Your task to perform on an android device: Open Chrome and go to settings Image 0: 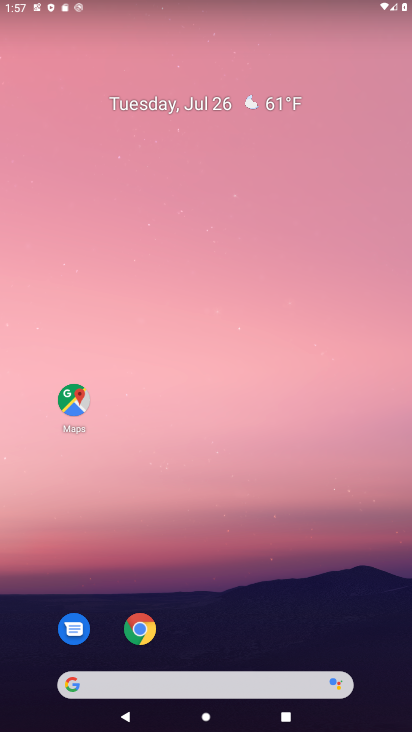
Step 0: click (150, 632)
Your task to perform on an android device: Open Chrome and go to settings Image 1: 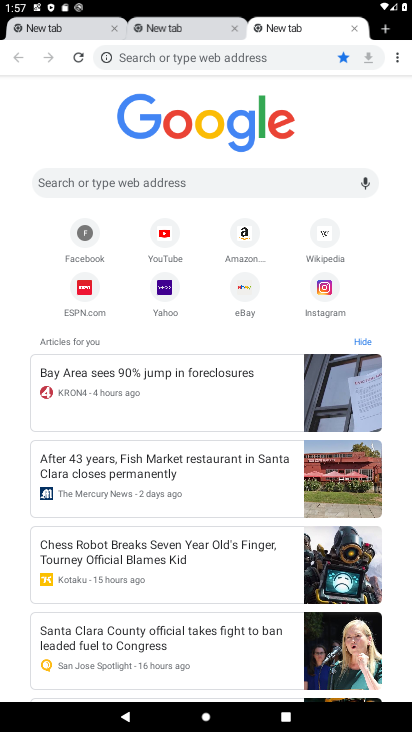
Step 1: click (401, 55)
Your task to perform on an android device: Open Chrome and go to settings Image 2: 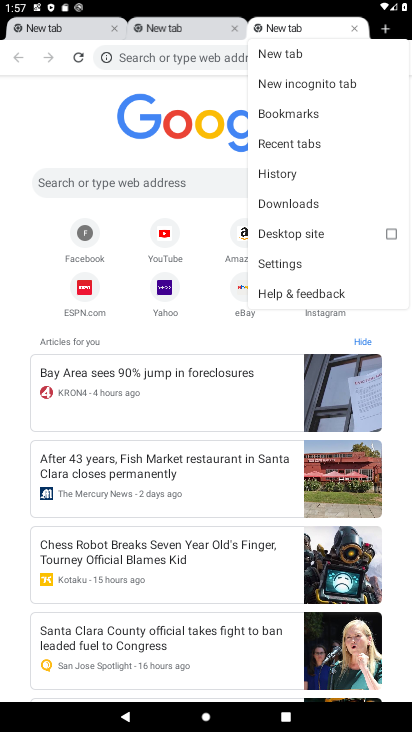
Step 2: click (298, 256)
Your task to perform on an android device: Open Chrome and go to settings Image 3: 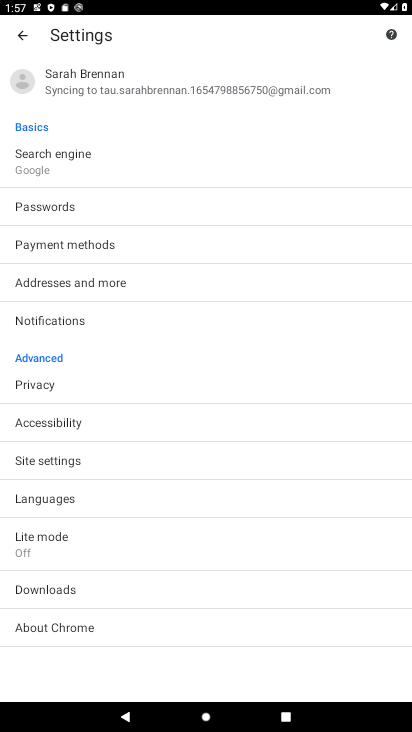
Step 3: task complete